Your task to perform on an android device: Search for Italian restaurants on Maps Image 0: 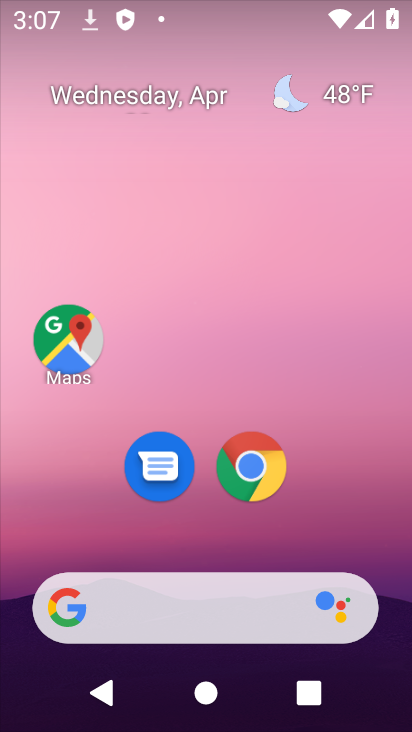
Step 0: click (76, 352)
Your task to perform on an android device: Search for Italian restaurants on Maps Image 1: 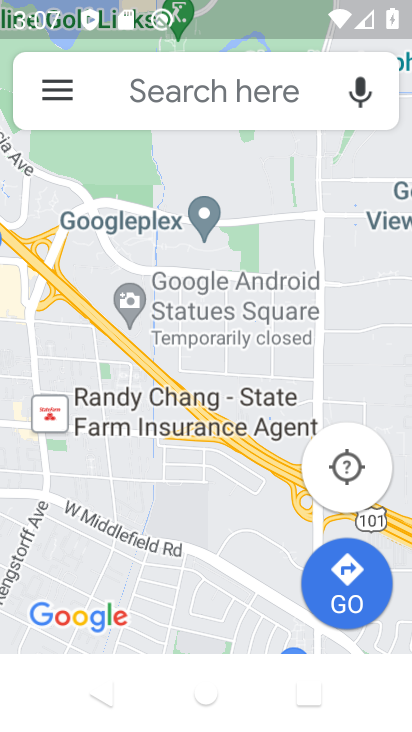
Step 1: click (219, 83)
Your task to perform on an android device: Search for Italian restaurants on Maps Image 2: 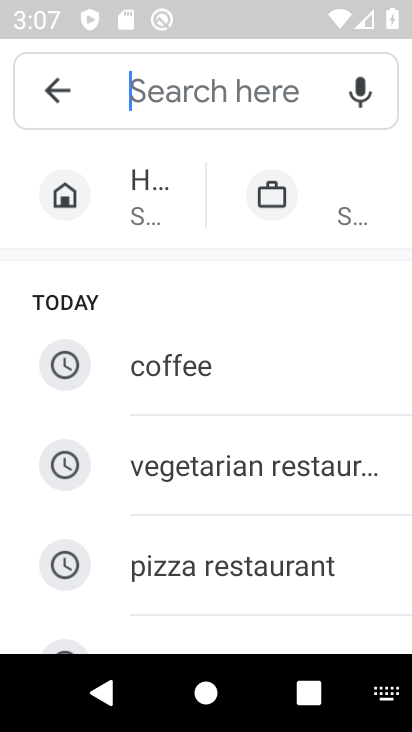
Step 2: drag from (236, 487) to (263, 246)
Your task to perform on an android device: Search for Italian restaurants on Maps Image 3: 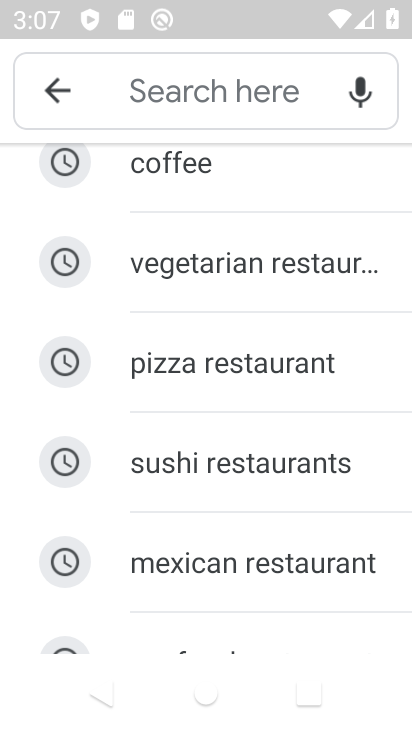
Step 3: drag from (254, 485) to (273, 209)
Your task to perform on an android device: Search for Italian restaurants on Maps Image 4: 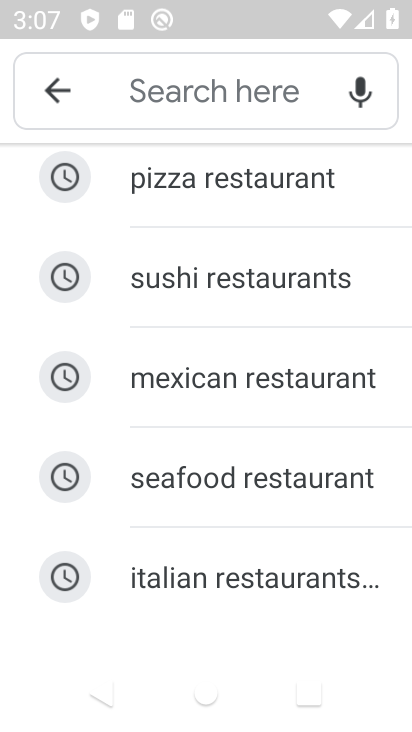
Step 4: click (248, 564)
Your task to perform on an android device: Search for Italian restaurants on Maps Image 5: 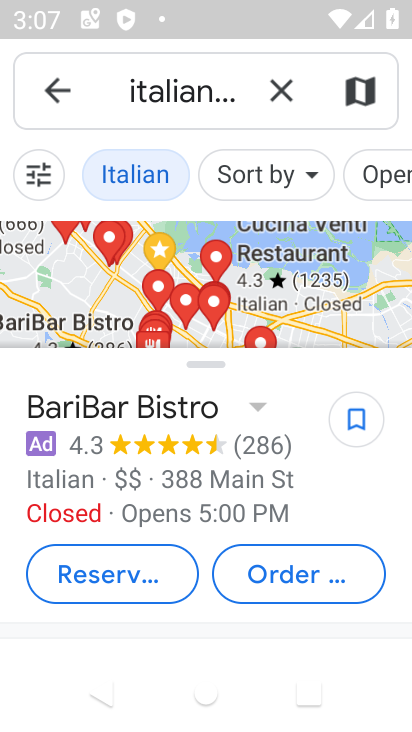
Step 5: task complete